Your task to perform on an android device: Turn on the flashlight Image 0: 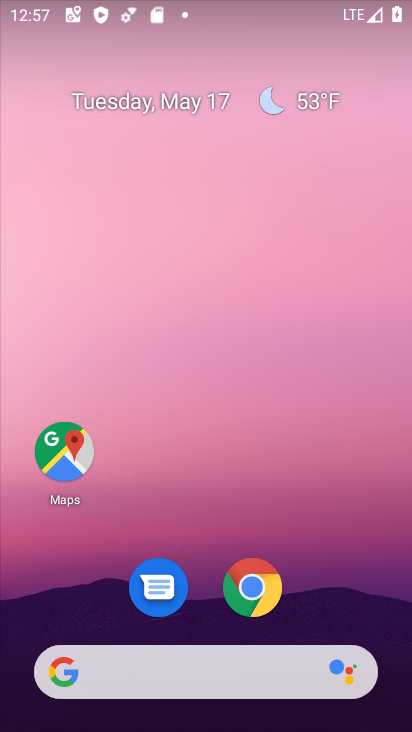
Step 0: drag from (186, 621) to (136, 4)
Your task to perform on an android device: Turn on the flashlight Image 1: 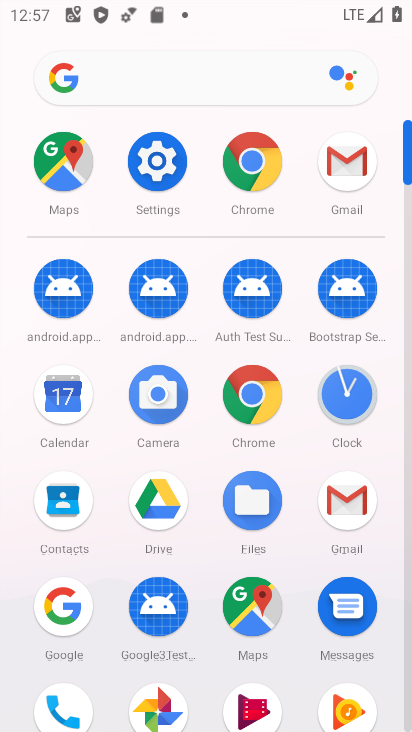
Step 1: click (150, 140)
Your task to perform on an android device: Turn on the flashlight Image 2: 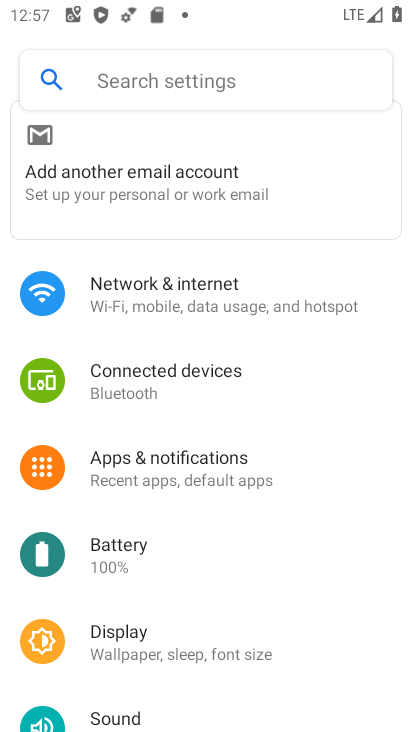
Step 2: task complete